Your task to perform on an android device: Open settings Image 0: 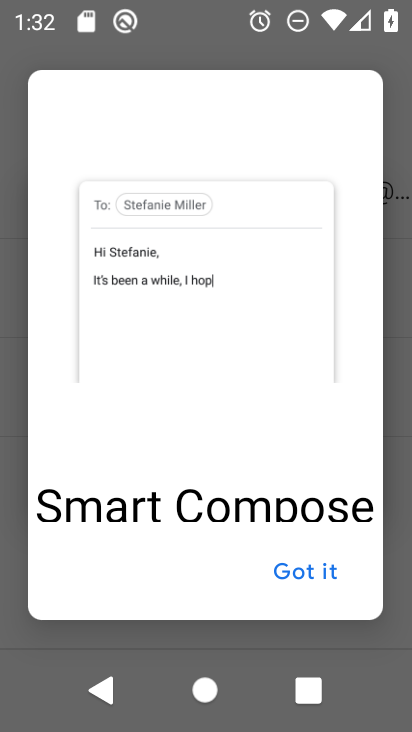
Step 0: press home button
Your task to perform on an android device: Open settings Image 1: 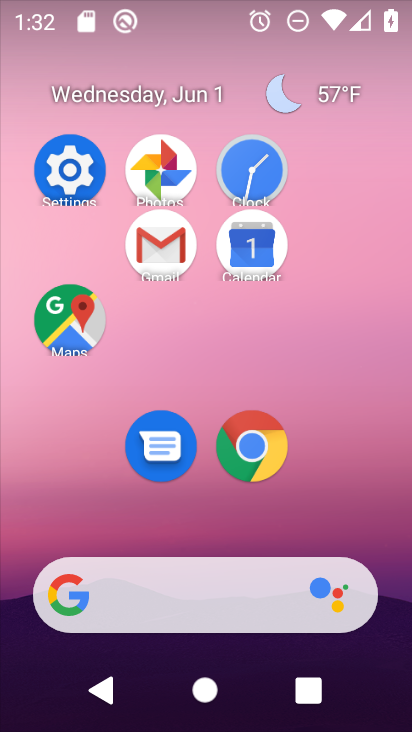
Step 1: click (74, 172)
Your task to perform on an android device: Open settings Image 2: 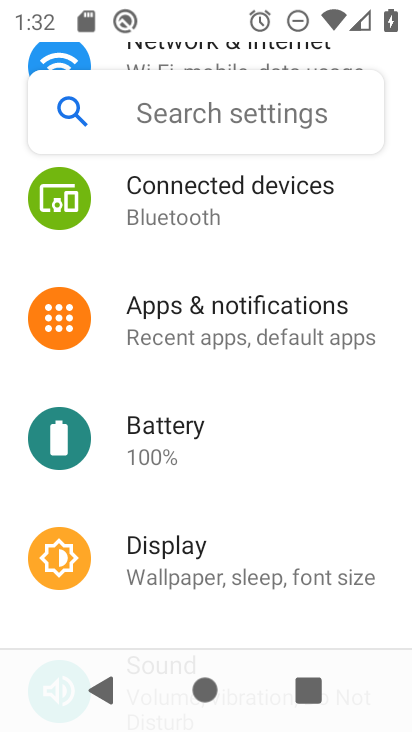
Step 2: task complete